Your task to perform on an android device: turn off priority inbox in the gmail app Image 0: 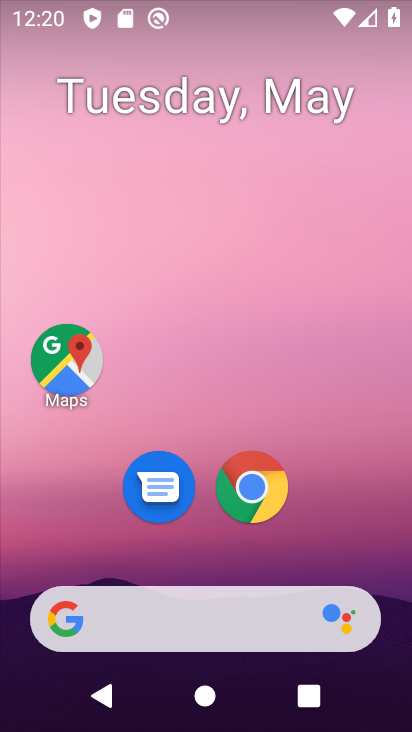
Step 0: drag from (350, 532) to (335, 166)
Your task to perform on an android device: turn off priority inbox in the gmail app Image 1: 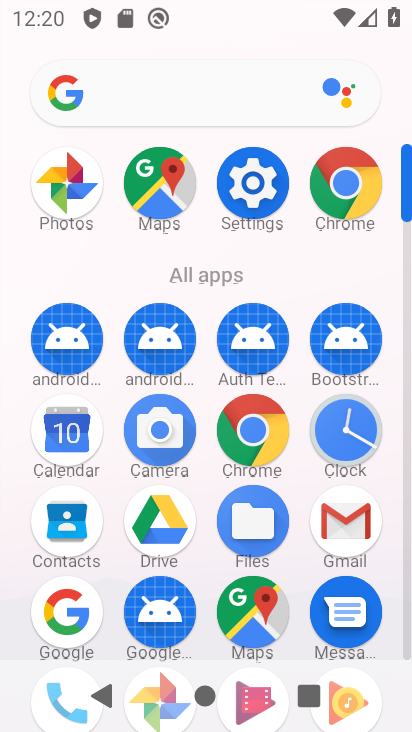
Step 1: click (355, 528)
Your task to perform on an android device: turn off priority inbox in the gmail app Image 2: 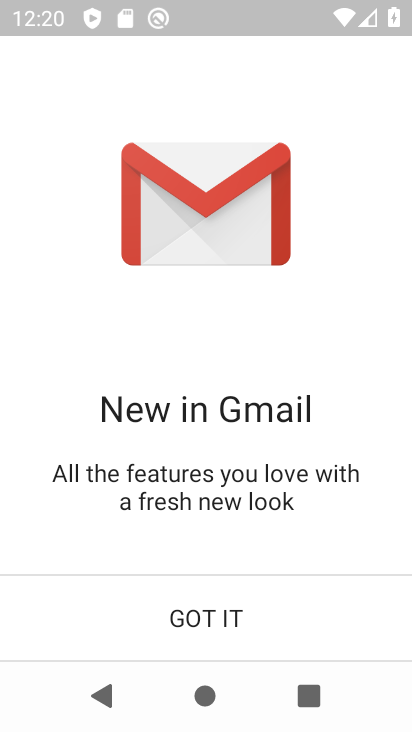
Step 2: click (235, 608)
Your task to perform on an android device: turn off priority inbox in the gmail app Image 3: 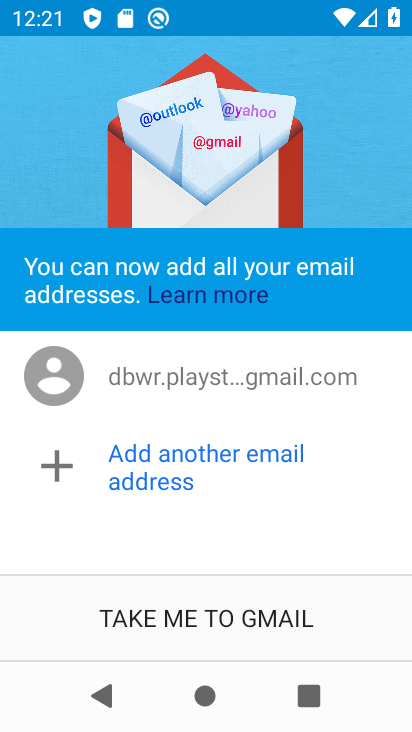
Step 3: click (183, 632)
Your task to perform on an android device: turn off priority inbox in the gmail app Image 4: 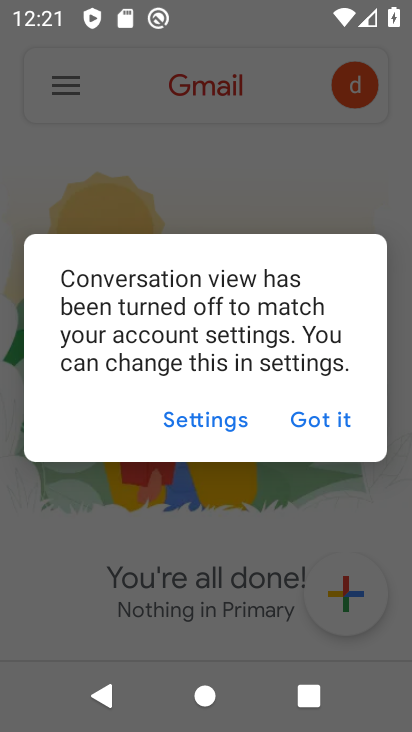
Step 4: click (318, 419)
Your task to perform on an android device: turn off priority inbox in the gmail app Image 5: 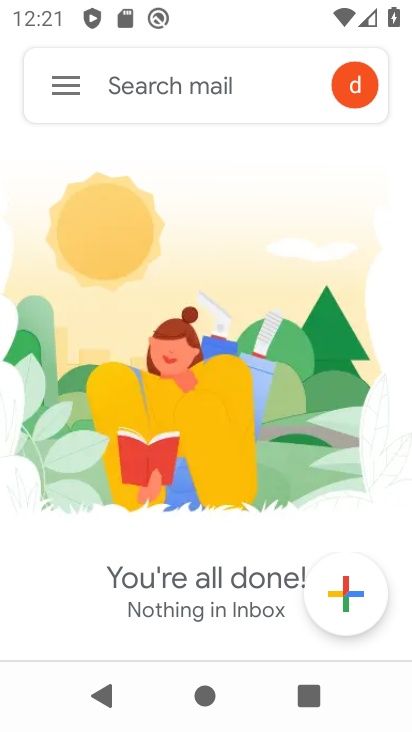
Step 5: click (79, 88)
Your task to perform on an android device: turn off priority inbox in the gmail app Image 6: 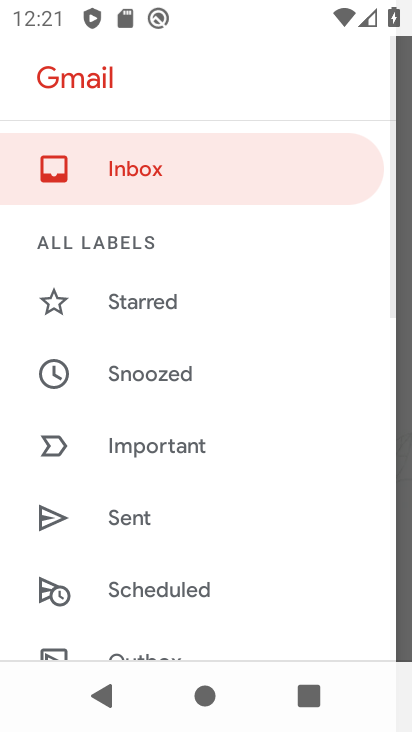
Step 6: drag from (198, 599) to (195, 213)
Your task to perform on an android device: turn off priority inbox in the gmail app Image 7: 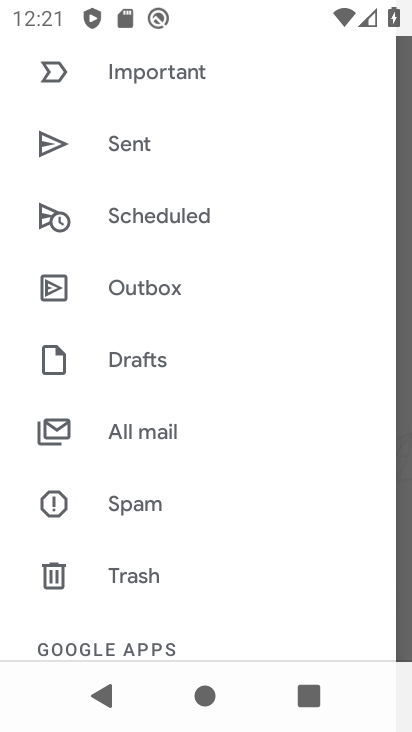
Step 7: drag from (161, 590) to (150, 284)
Your task to perform on an android device: turn off priority inbox in the gmail app Image 8: 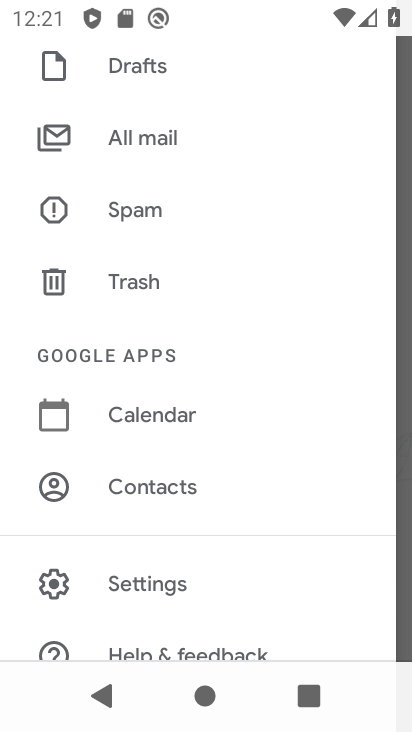
Step 8: click (166, 577)
Your task to perform on an android device: turn off priority inbox in the gmail app Image 9: 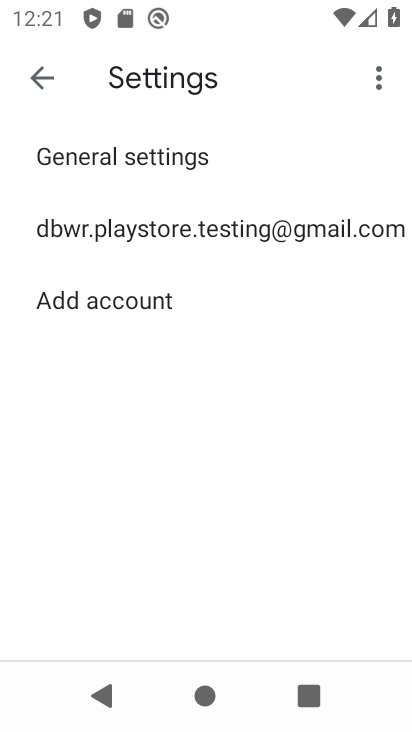
Step 9: click (75, 232)
Your task to perform on an android device: turn off priority inbox in the gmail app Image 10: 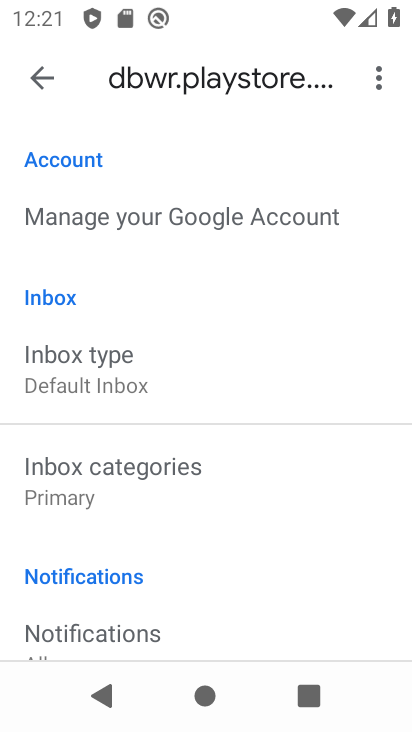
Step 10: click (102, 374)
Your task to perform on an android device: turn off priority inbox in the gmail app Image 11: 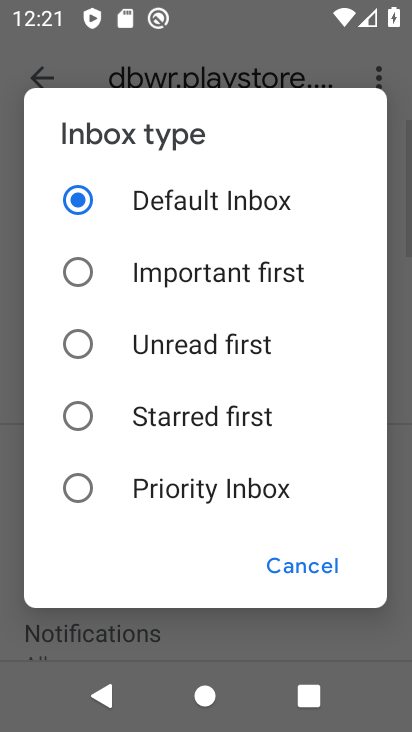
Step 11: click (107, 202)
Your task to perform on an android device: turn off priority inbox in the gmail app Image 12: 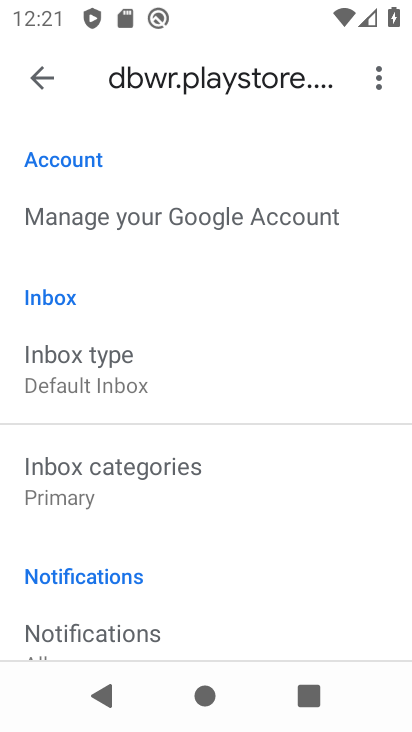
Step 12: task complete